Your task to perform on an android device: Open Amazon Image 0: 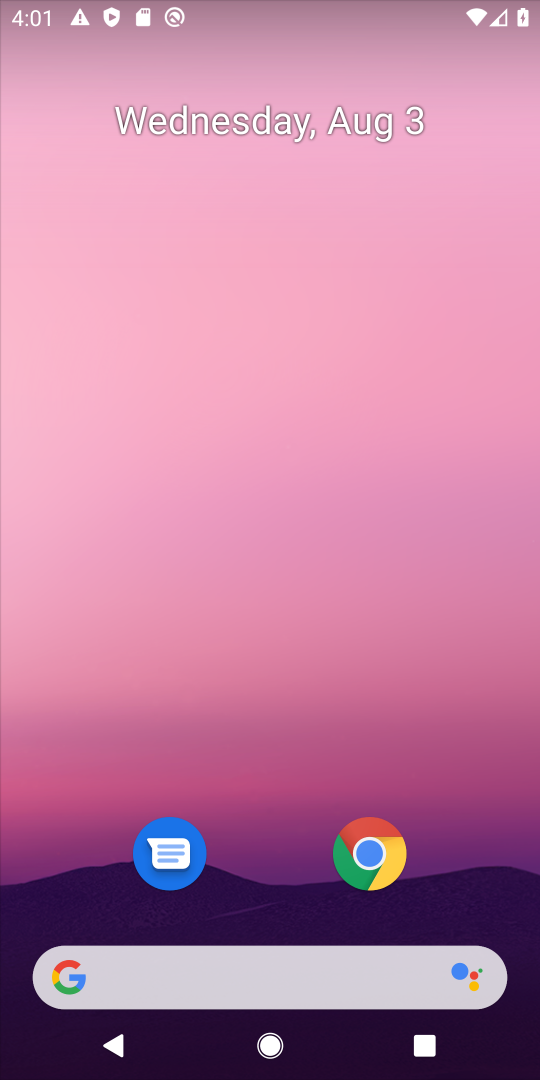
Step 0: click (360, 854)
Your task to perform on an android device: Open Amazon Image 1: 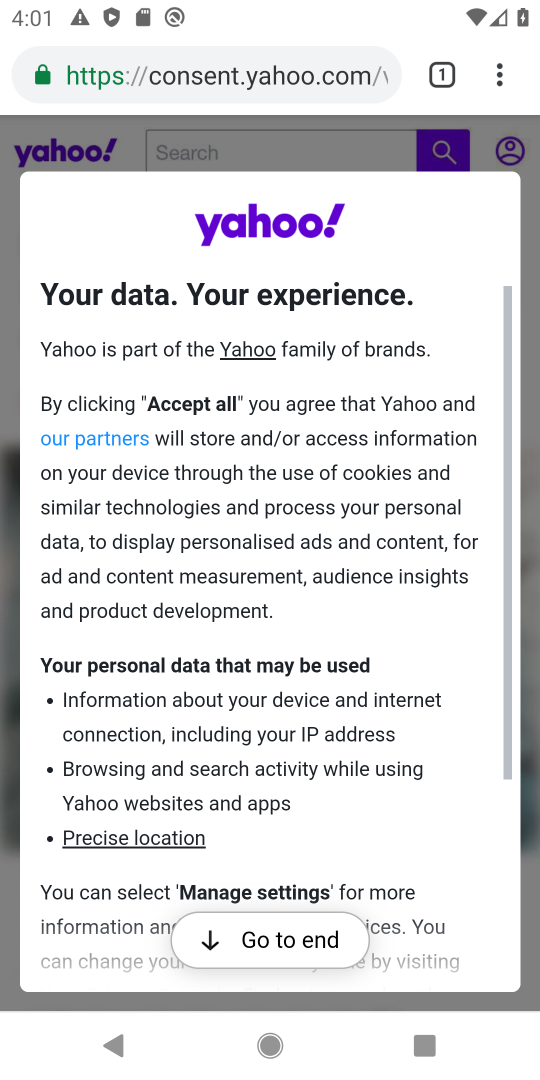
Step 1: click (497, 83)
Your task to perform on an android device: Open Amazon Image 2: 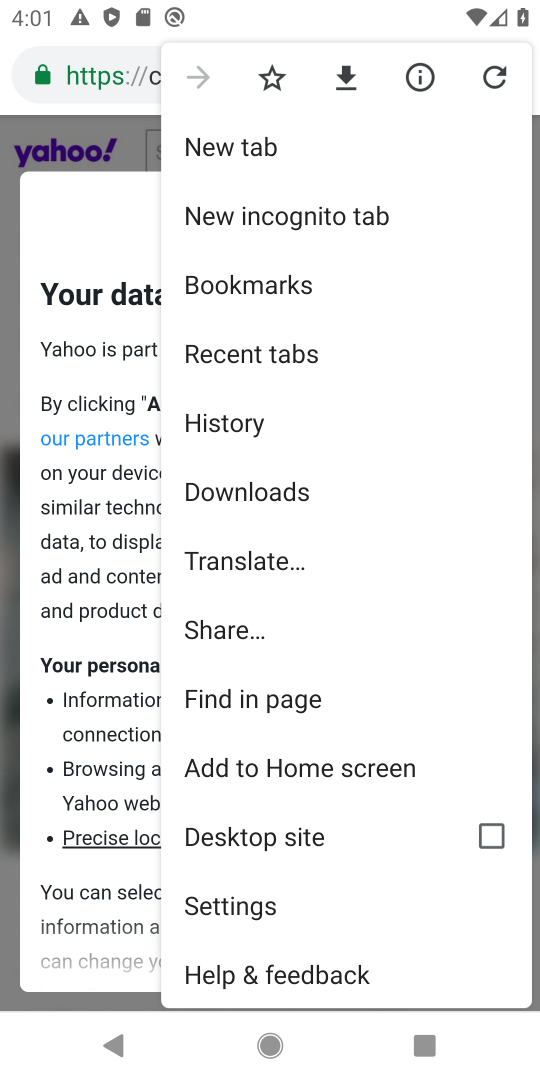
Step 2: click (241, 146)
Your task to perform on an android device: Open Amazon Image 3: 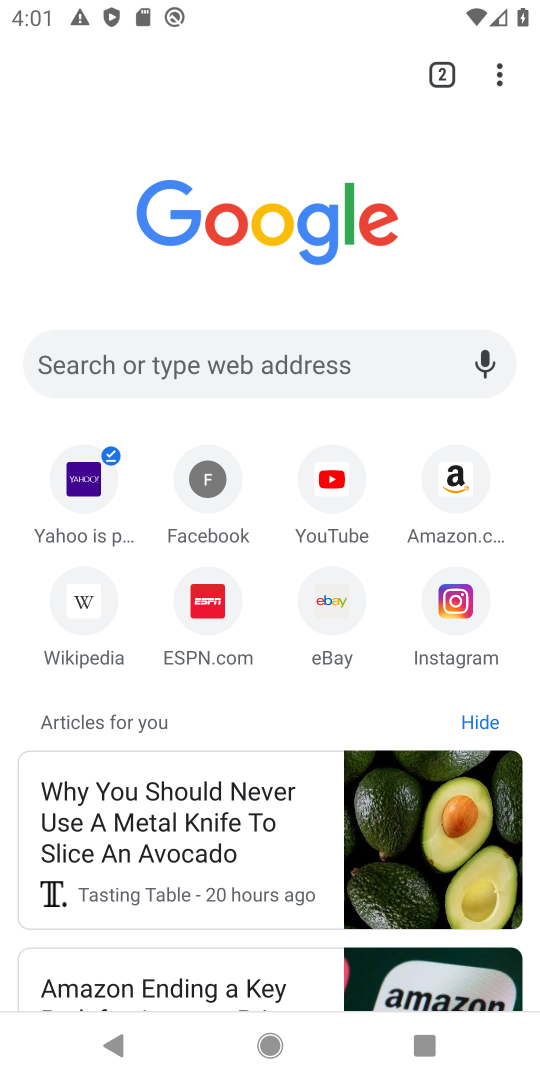
Step 3: click (448, 493)
Your task to perform on an android device: Open Amazon Image 4: 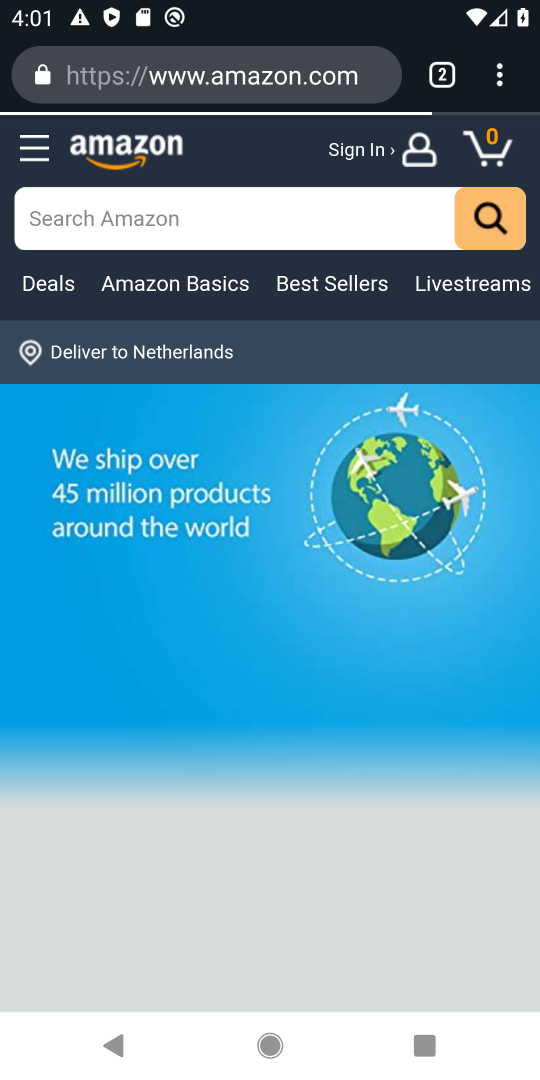
Step 4: task complete